Your task to perform on an android device: change text size in settings app Image 0: 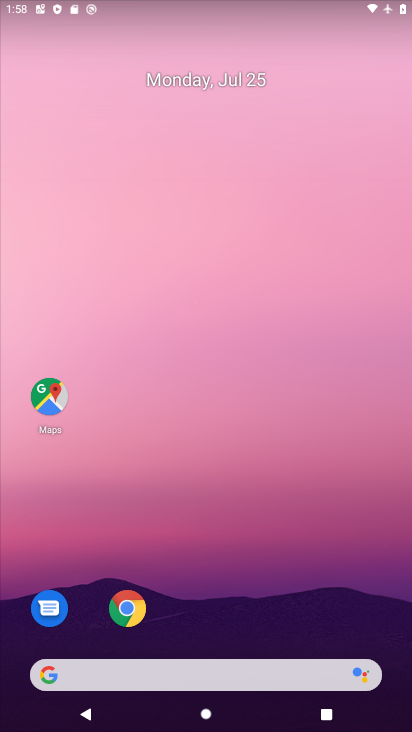
Step 0: drag from (264, 611) to (283, 61)
Your task to perform on an android device: change text size in settings app Image 1: 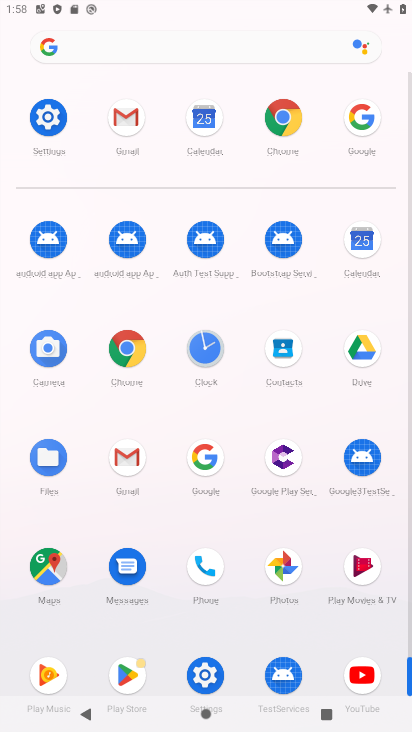
Step 1: click (42, 144)
Your task to perform on an android device: change text size in settings app Image 2: 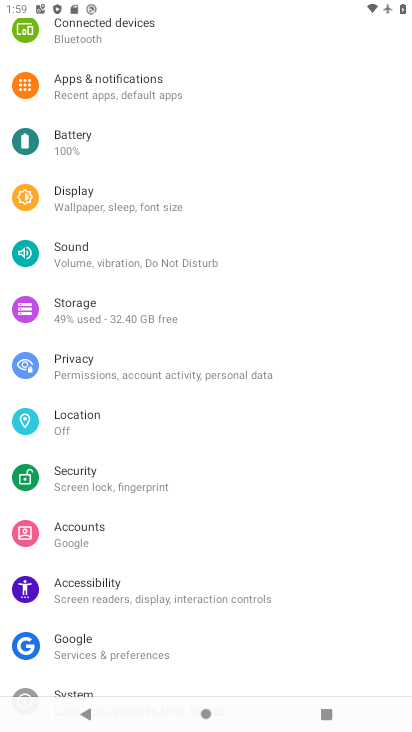
Step 2: click (119, 205)
Your task to perform on an android device: change text size in settings app Image 3: 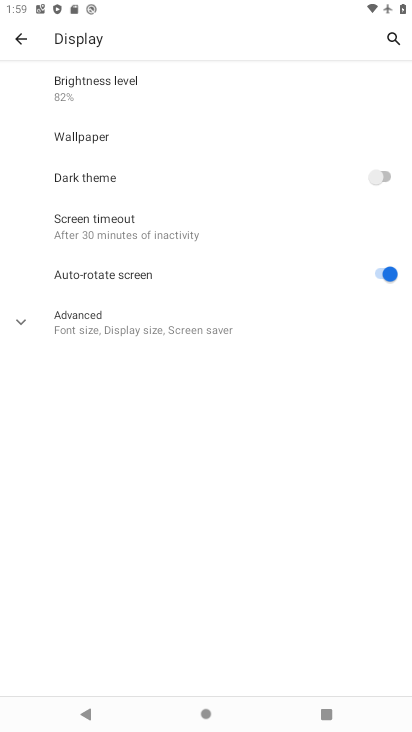
Step 3: click (114, 317)
Your task to perform on an android device: change text size in settings app Image 4: 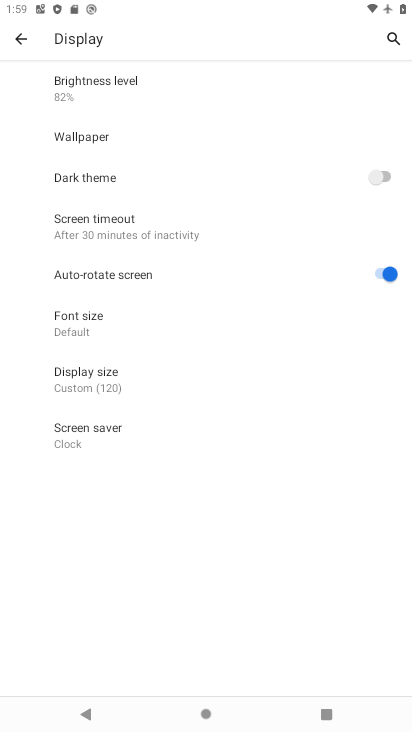
Step 4: click (100, 315)
Your task to perform on an android device: change text size in settings app Image 5: 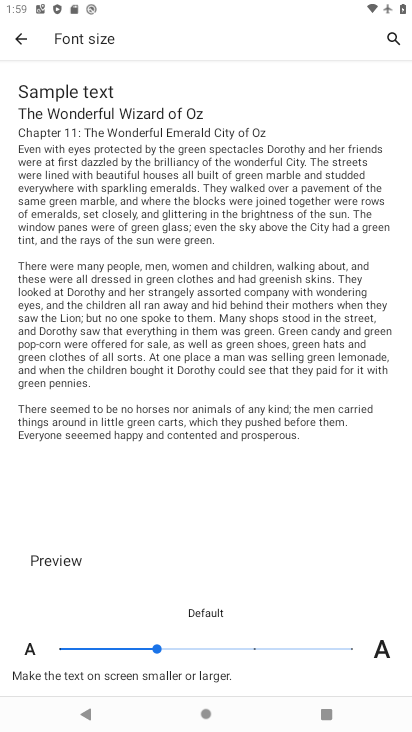
Step 5: click (250, 646)
Your task to perform on an android device: change text size in settings app Image 6: 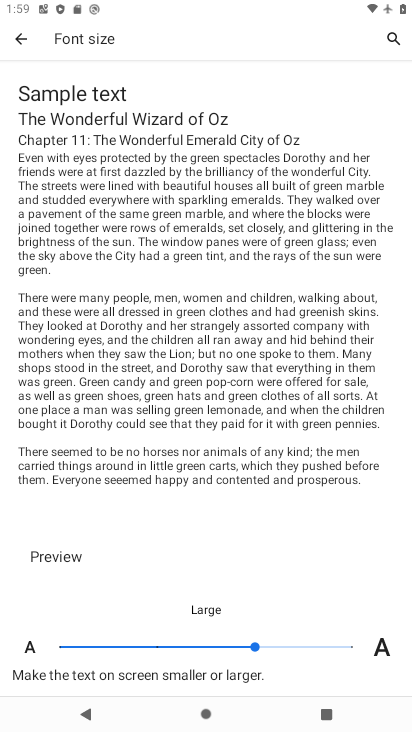
Step 6: task complete